Your task to perform on an android device: Add asus rog to the cart on bestbuy Image 0: 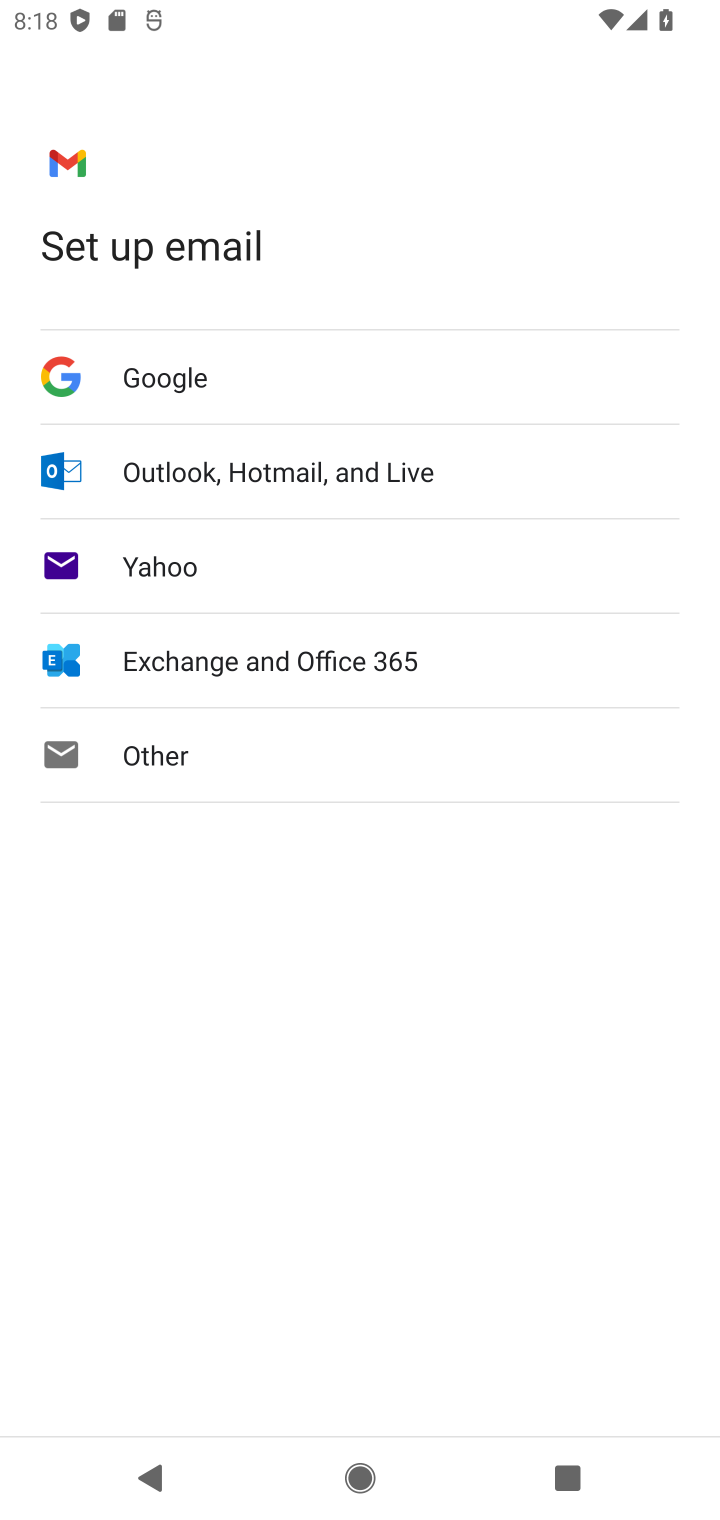
Step 0: press home button
Your task to perform on an android device: Add asus rog to the cart on bestbuy Image 1: 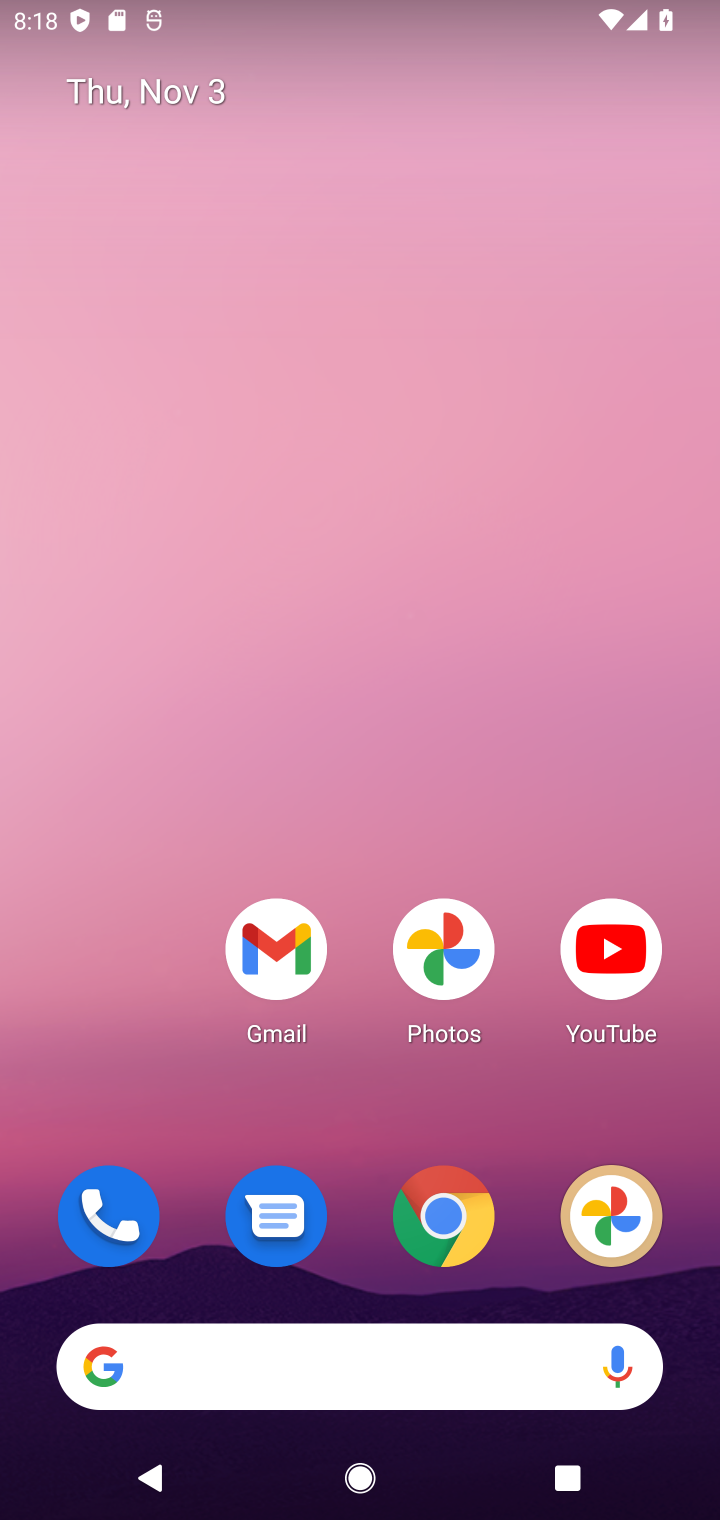
Step 1: click (463, 1210)
Your task to perform on an android device: Add asus rog to the cart on bestbuy Image 2: 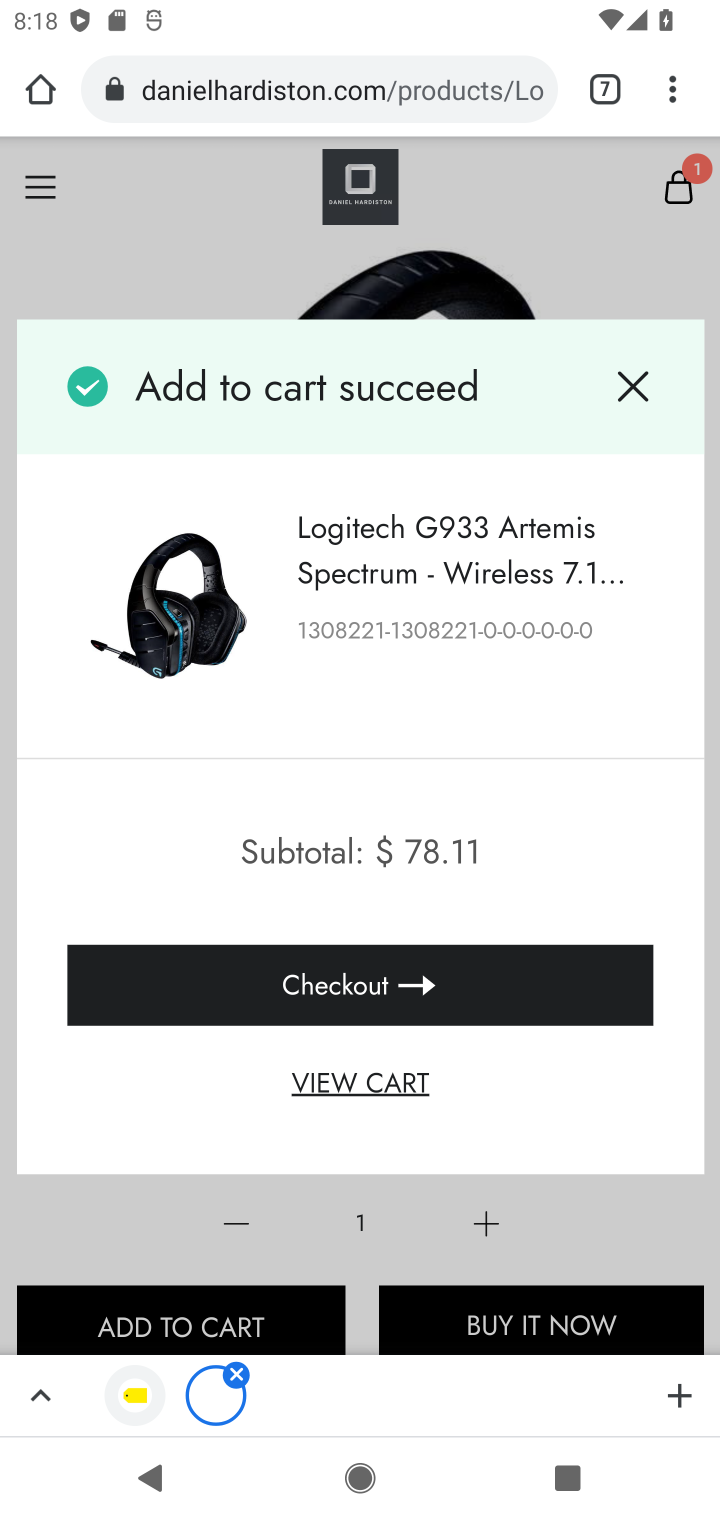
Step 2: click (618, 83)
Your task to perform on an android device: Add asus rog to the cart on bestbuy Image 3: 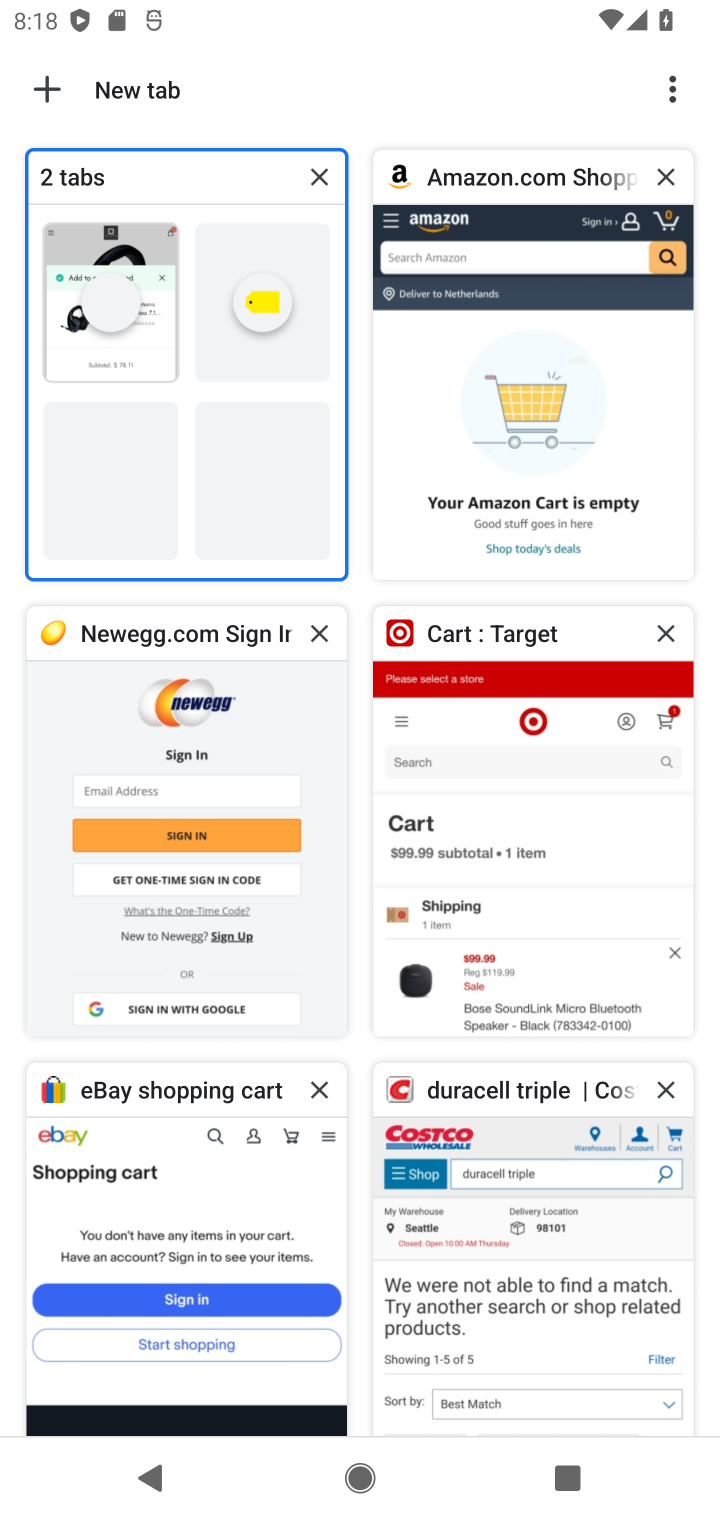
Step 3: click (255, 333)
Your task to perform on an android device: Add asus rog to the cart on bestbuy Image 4: 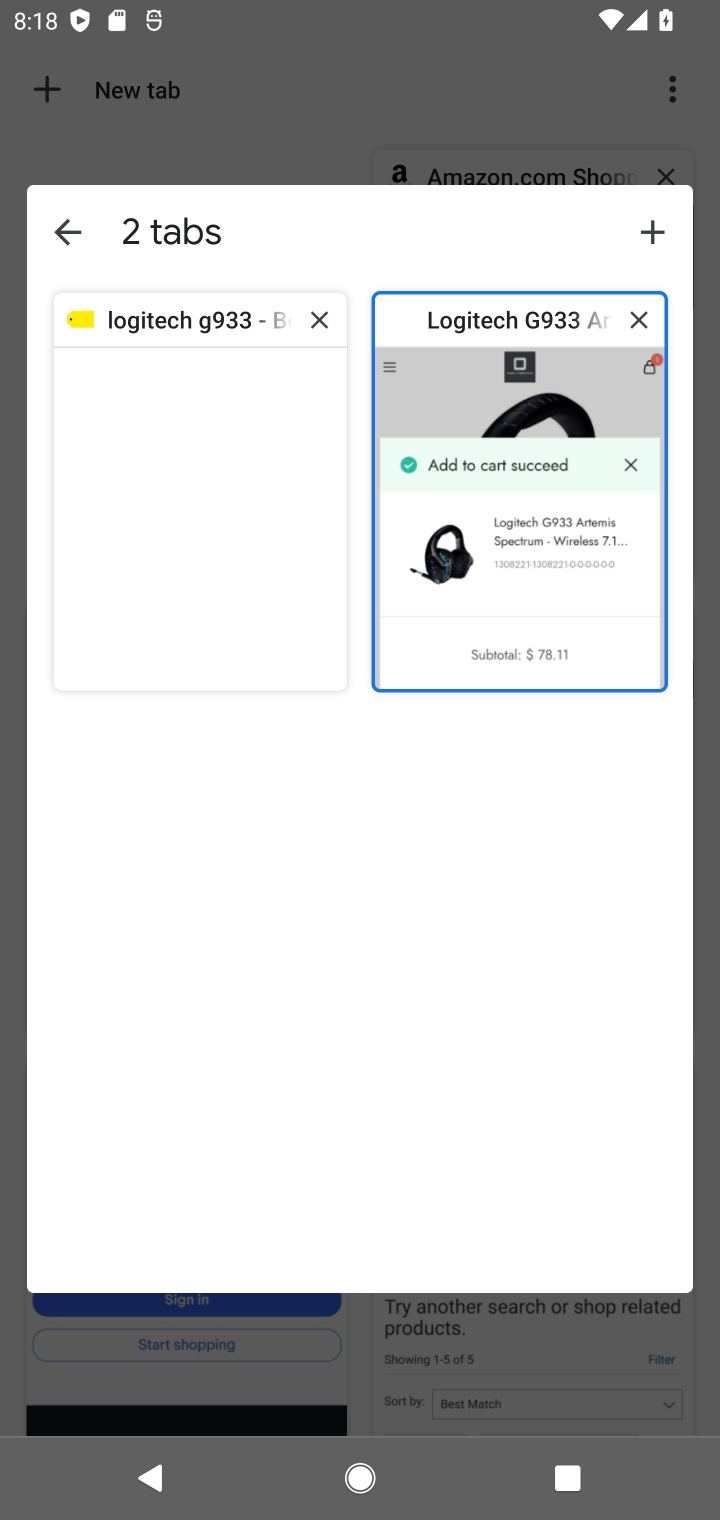
Step 4: click (640, 314)
Your task to perform on an android device: Add asus rog to the cart on bestbuy Image 5: 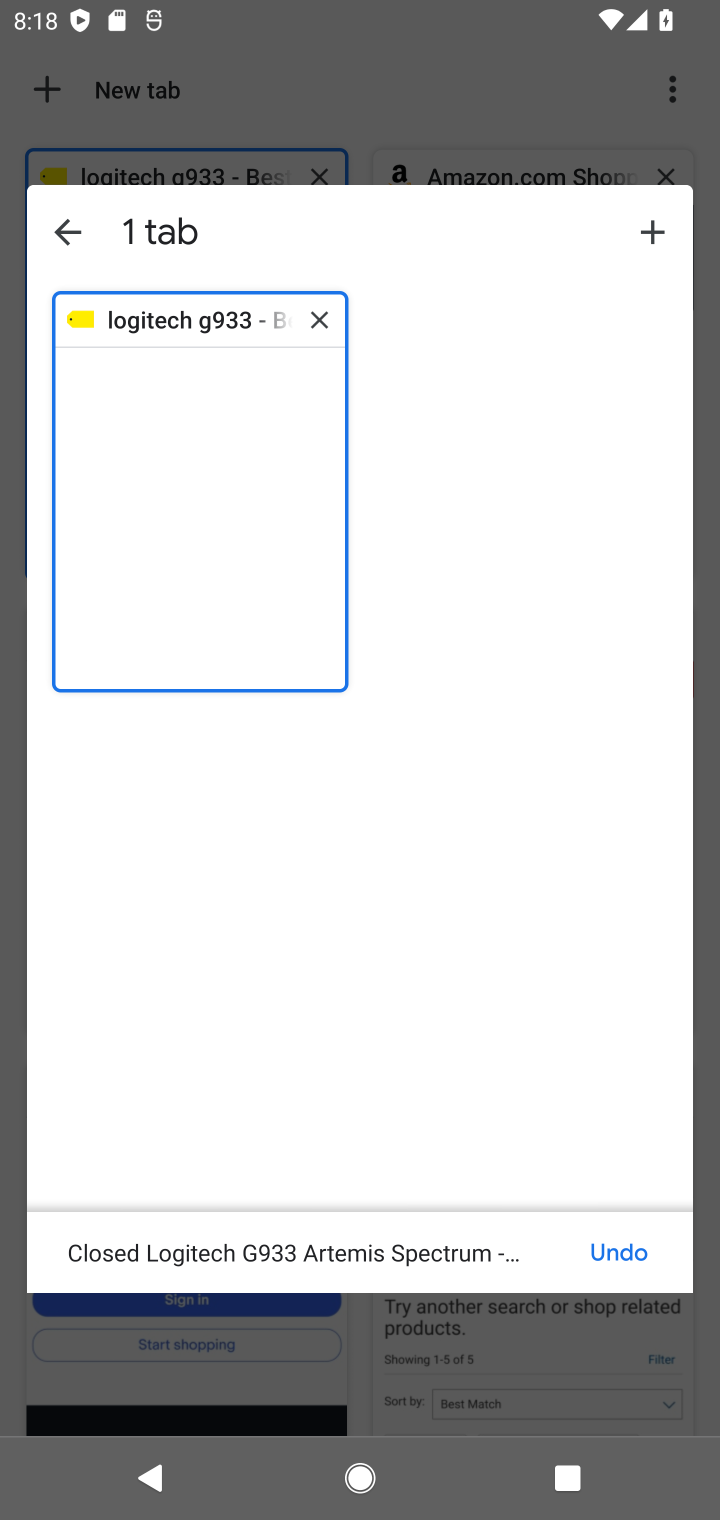
Step 5: click (67, 228)
Your task to perform on an android device: Add asus rog to the cart on bestbuy Image 6: 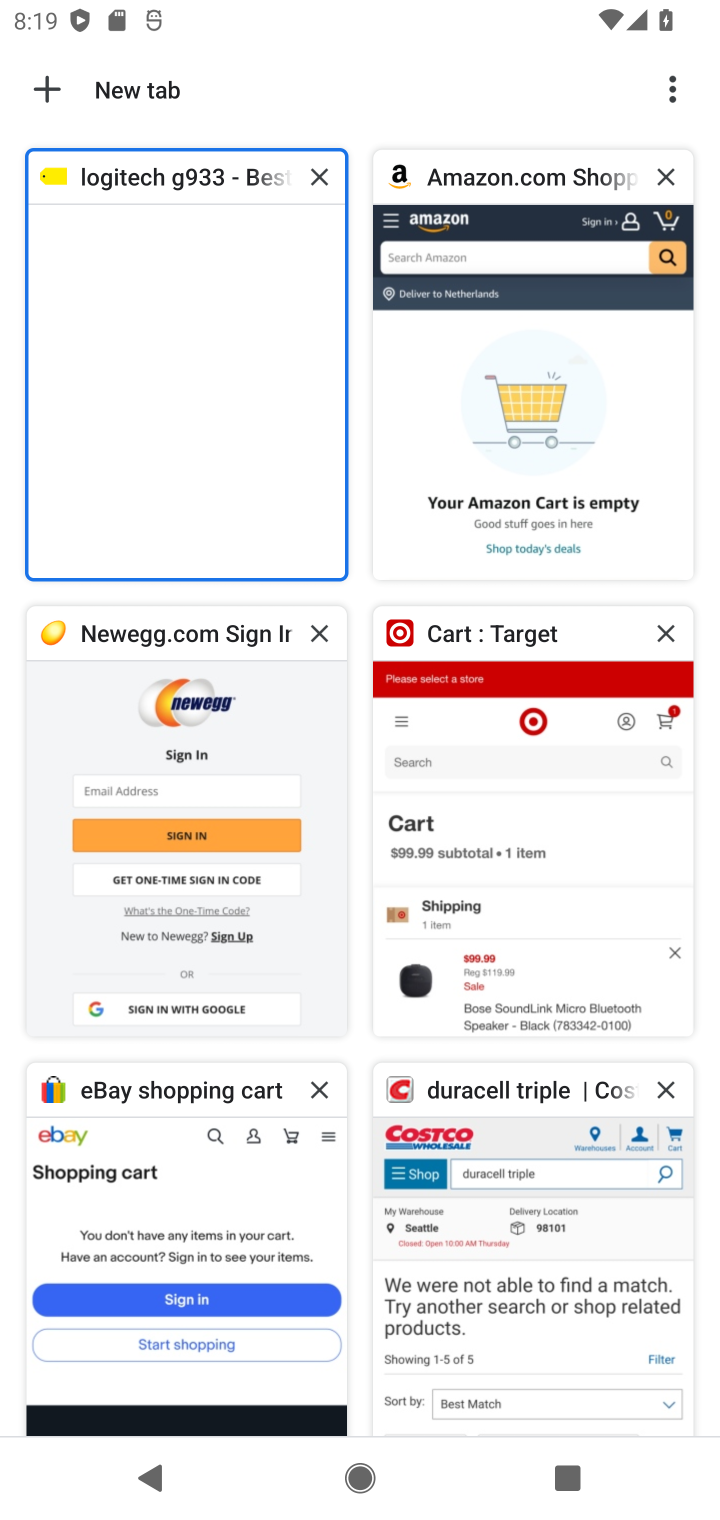
Step 6: click (229, 418)
Your task to perform on an android device: Add asus rog to the cart on bestbuy Image 7: 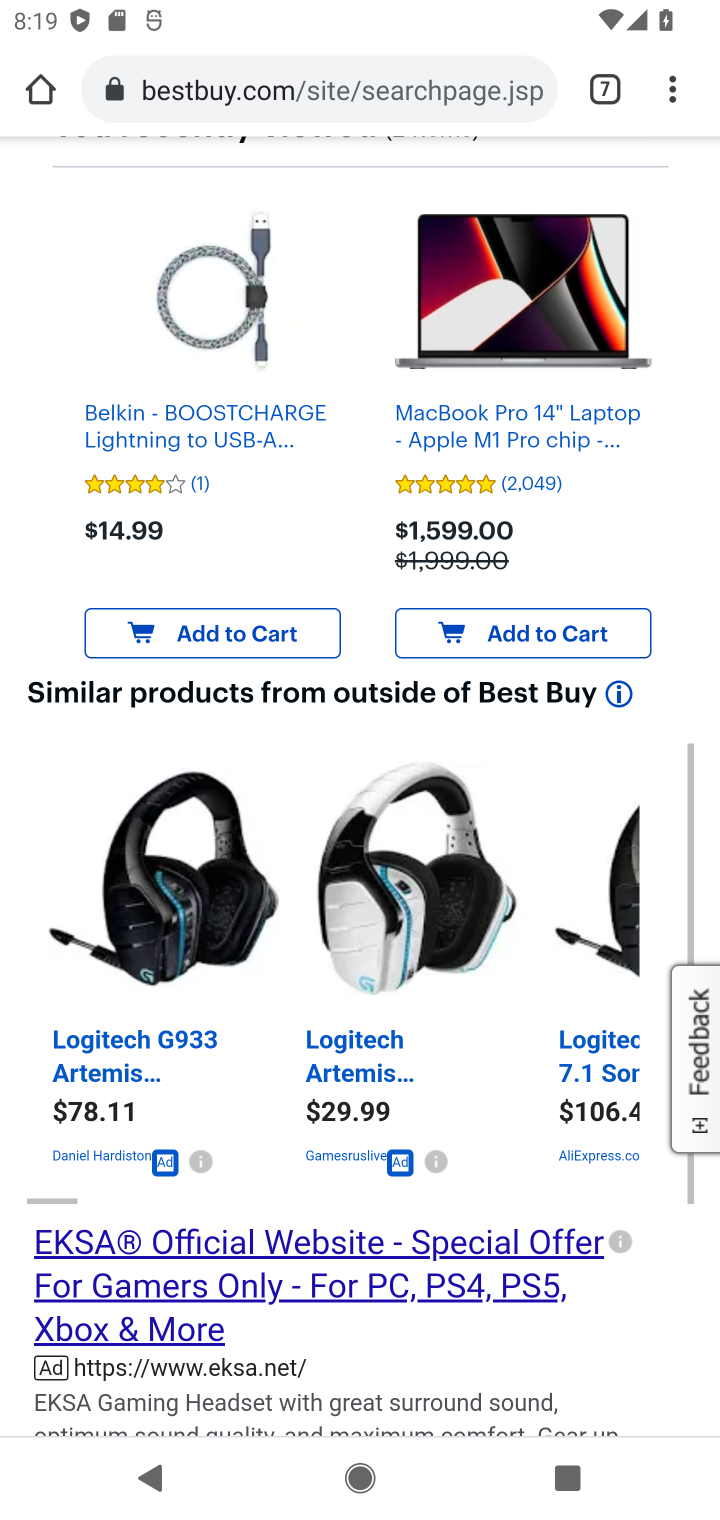
Step 7: drag from (677, 253) to (709, 900)
Your task to perform on an android device: Add asus rog to the cart on bestbuy Image 8: 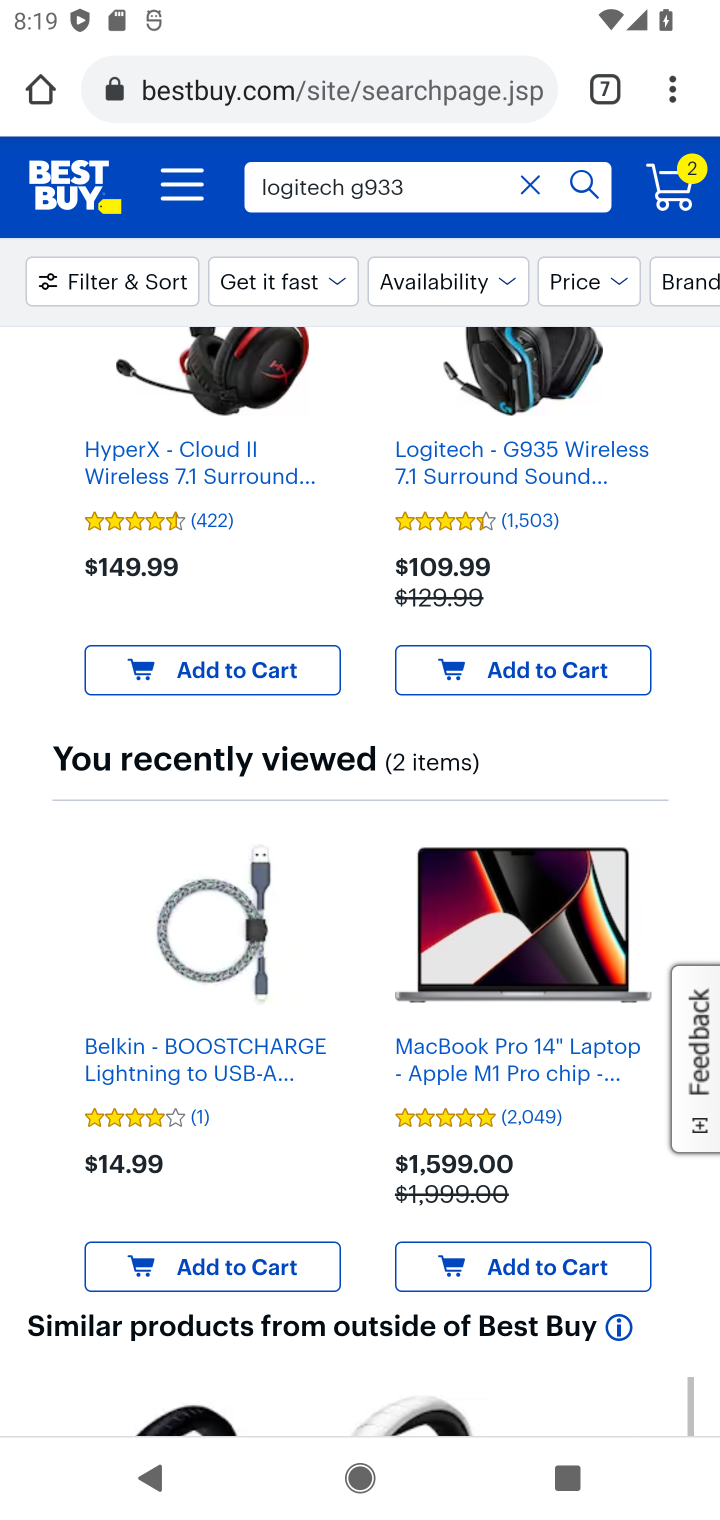
Step 8: click (517, 186)
Your task to perform on an android device: Add asus rog to the cart on bestbuy Image 9: 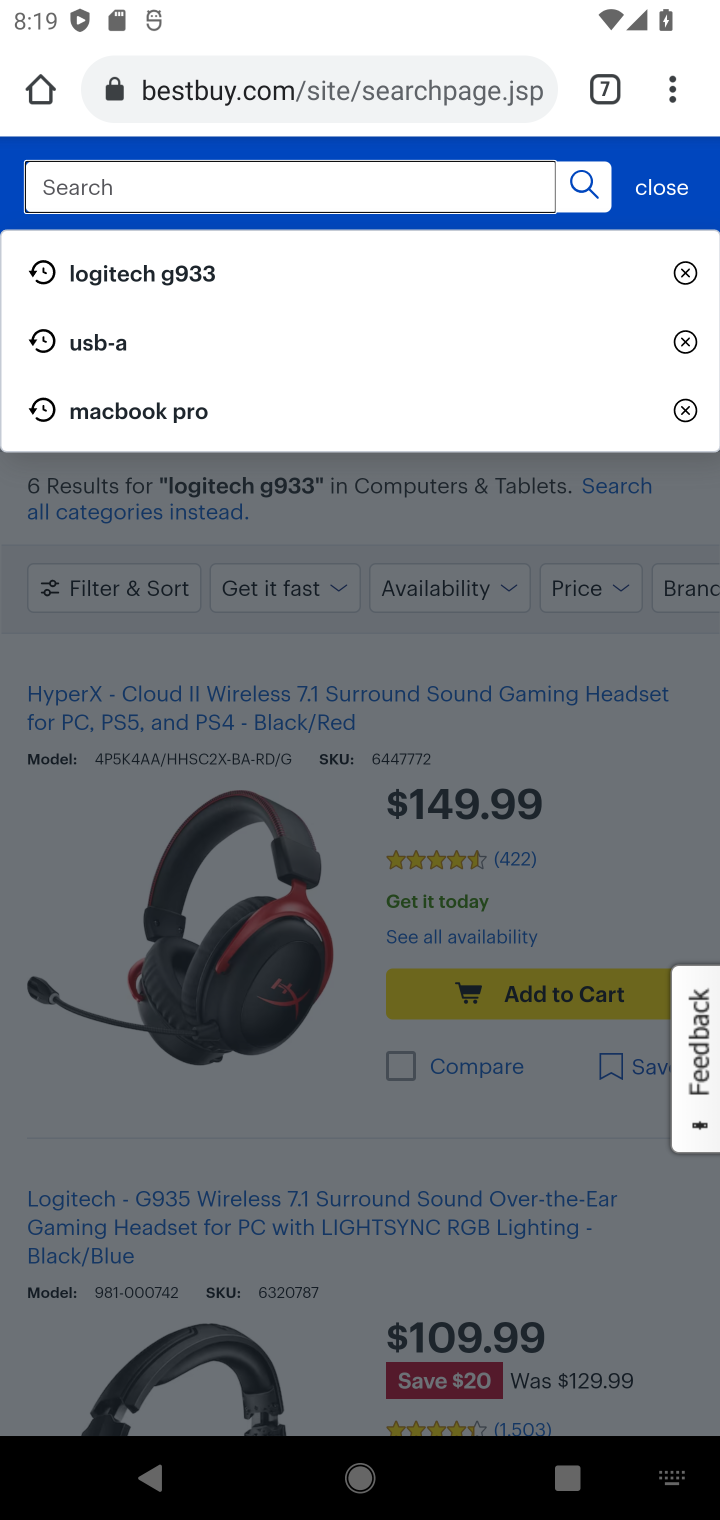
Step 9: type "asus rog "
Your task to perform on an android device: Add asus rog to the cart on bestbuy Image 10: 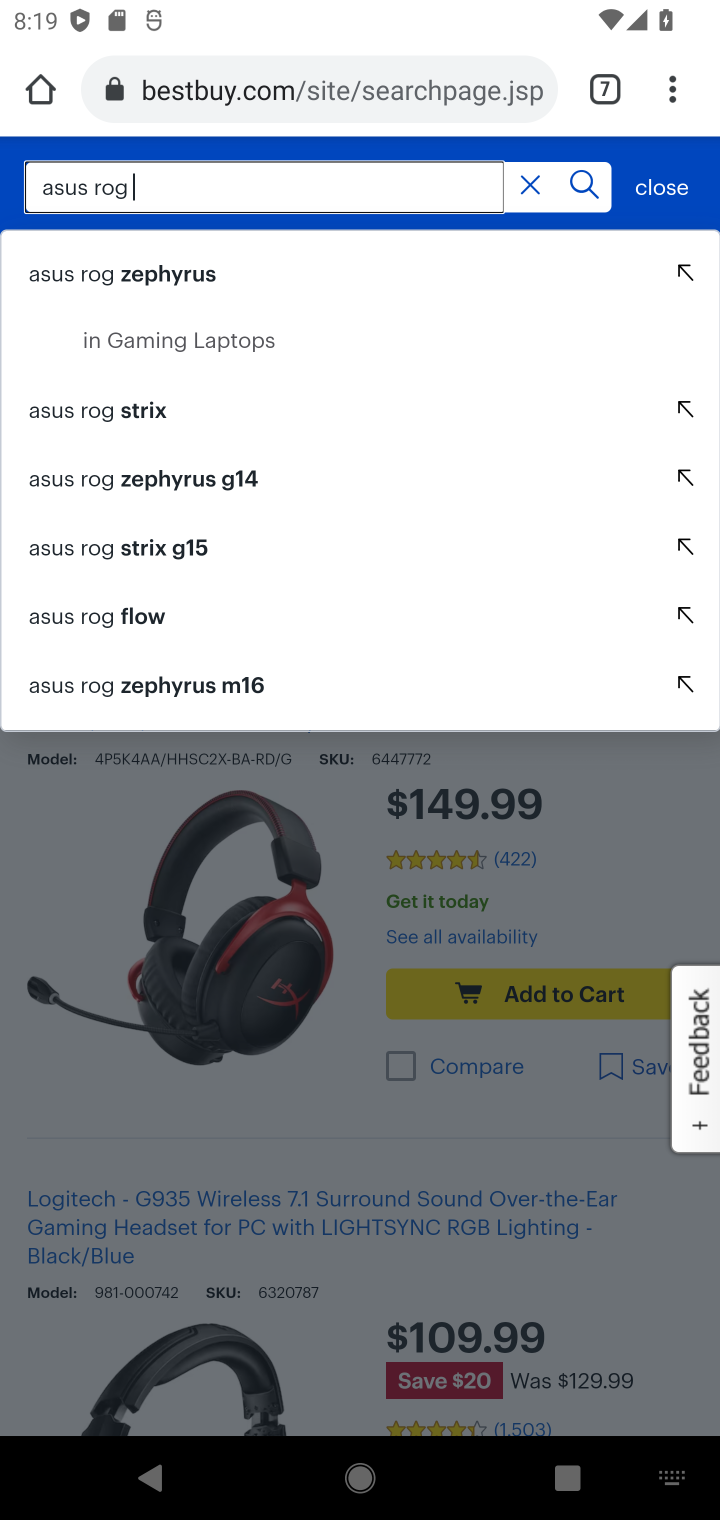
Step 10: press enter
Your task to perform on an android device: Add asus rog to the cart on bestbuy Image 11: 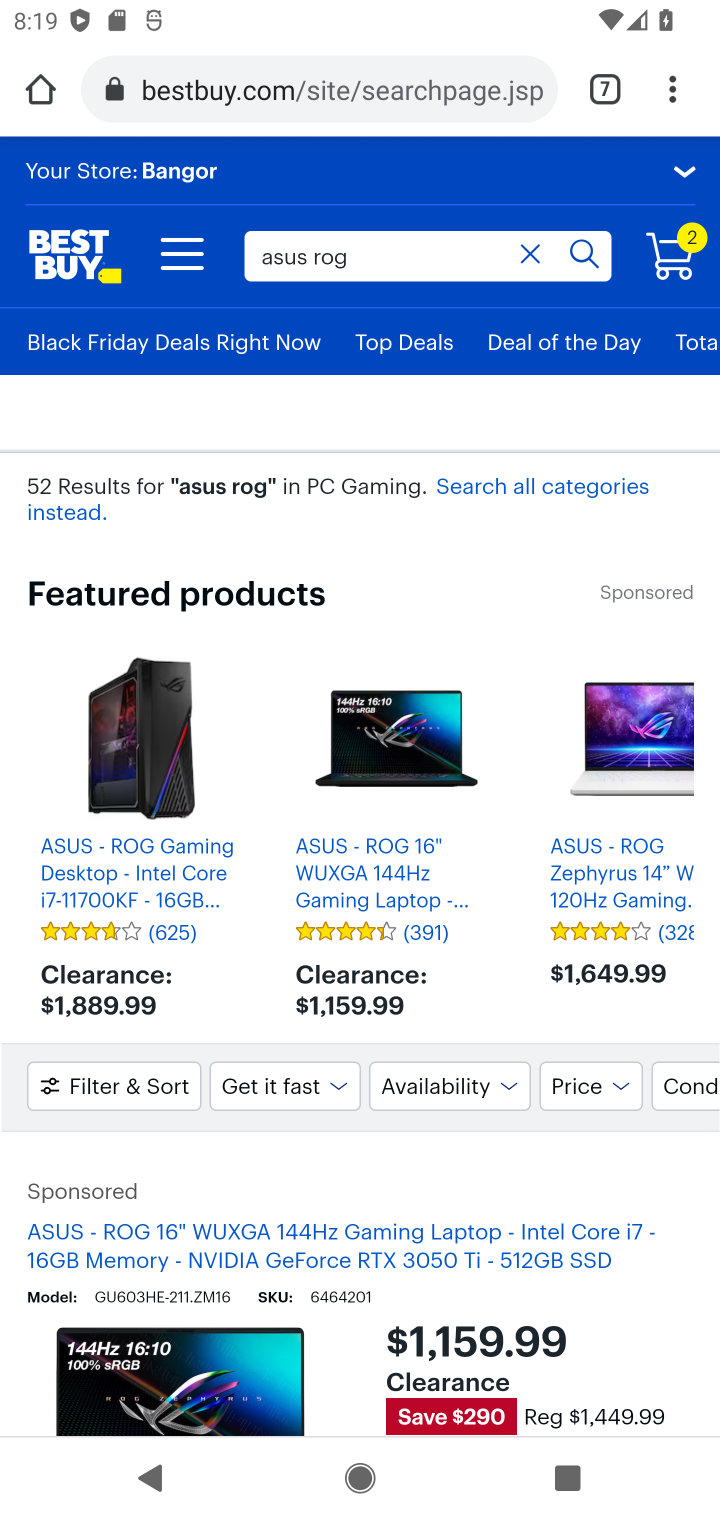
Step 11: task complete